Your task to perform on an android device: Open Chrome and go to the settings page Image 0: 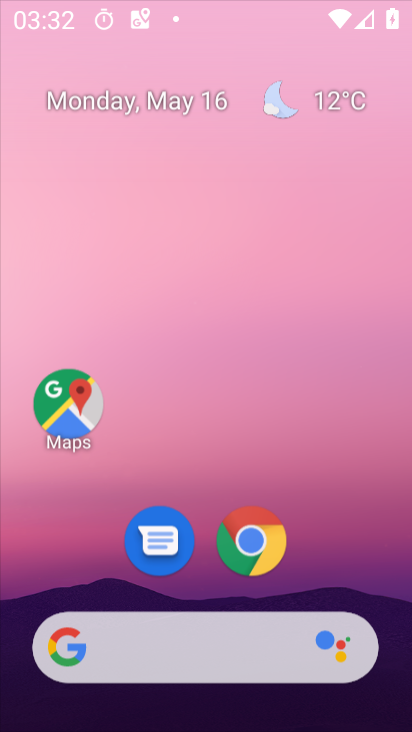
Step 0: click (204, 82)
Your task to perform on an android device: Open Chrome and go to the settings page Image 1: 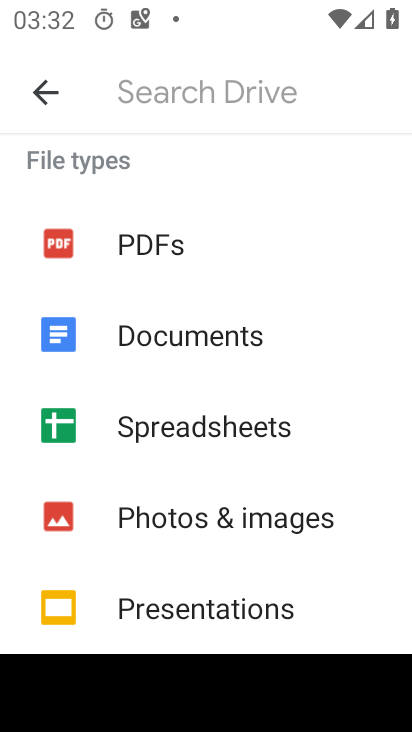
Step 1: press home button
Your task to perform on an android device: Open Chrome and go to the settings page Image 2: 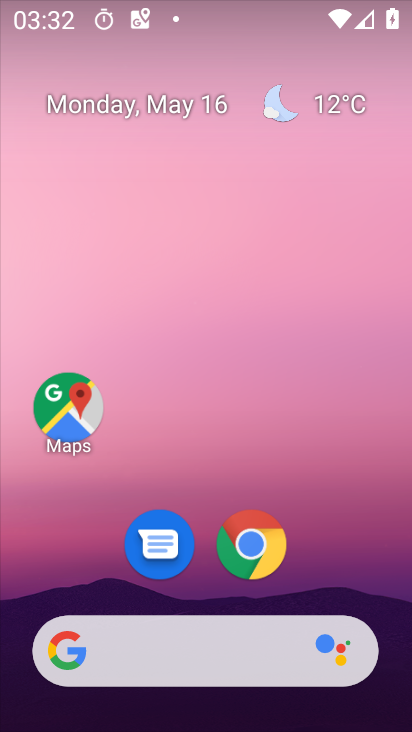
Step 2: click (242, 549)
Your task to perform on an android device: Open Chrome and go to the settings page Image 3: 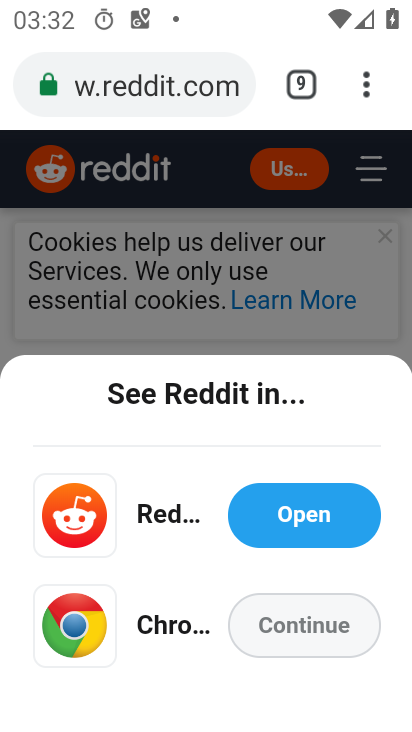
Step 3: click (364, 93)
Your task to perform on an android device: Open Chrome and go to the settings page Image 4: 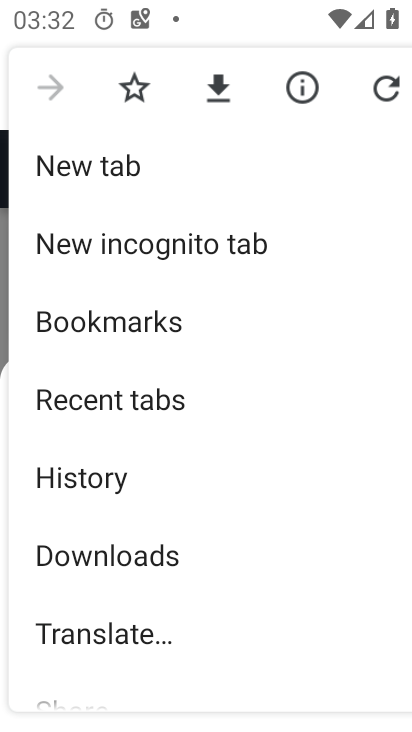
Step 4: drag from (113, 630) to (142, 256)
Your task to perform on an android device: Open Chrome and go to the settings page Image 5: 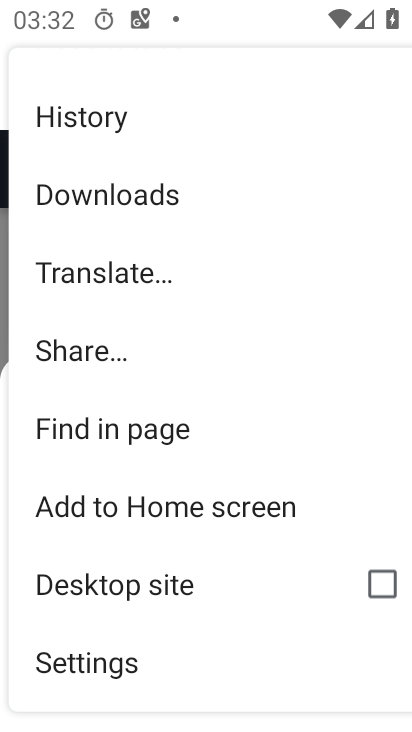
Step 5: click (88, 648)
Your task to perform on an android device: Open Chrome and go to the settings page Image 6: 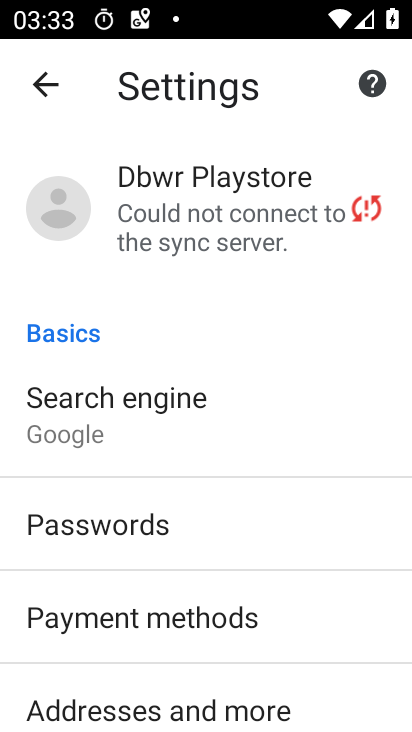
Step 6: task complete